Your task to perform on an android device: turn on translation in the chrome app Image 0: 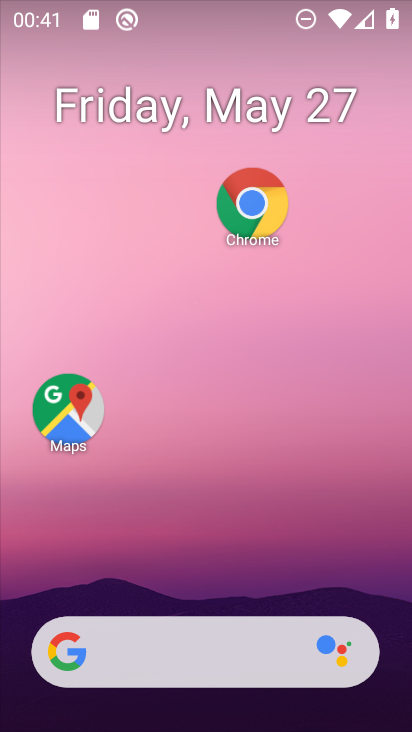
Step 0: drag from (164, 494) to (189, 32)
Your task to perform on an android device: turn on translation in the chrome app Image 1: 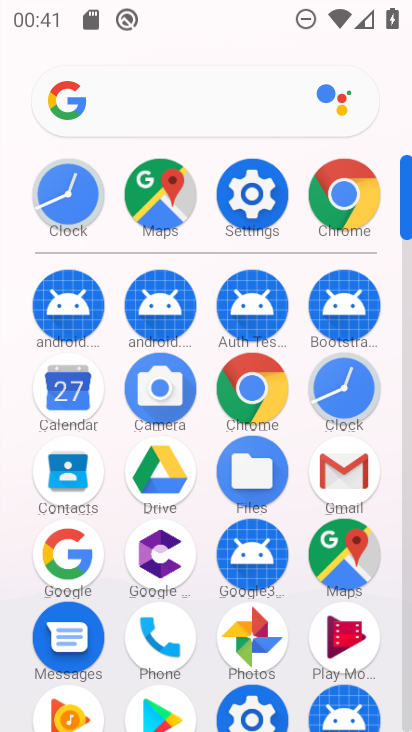
Step 1: click (252, 387)
Your task to perform on an android device: turn on translation in the chrome app Image 2: 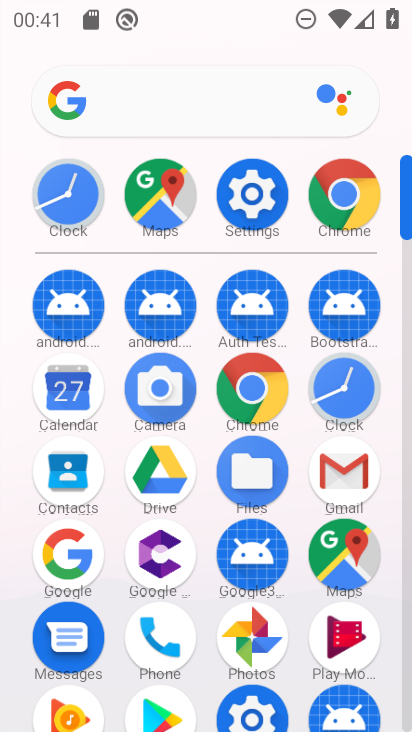
Step 2: click (252, 387)
Your task to perform on an android device: turn on translation in the chrome app Image 3: 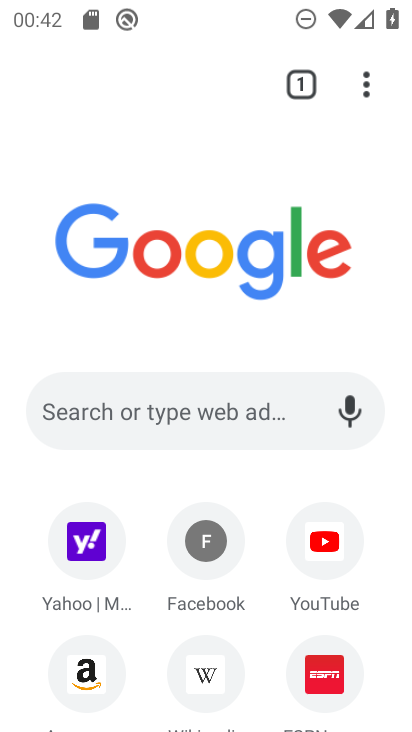
Step 3: drag from (221, 487) to (205, 119)
Your task to perform on an android device: turn on translation in the chrome app Image 4: 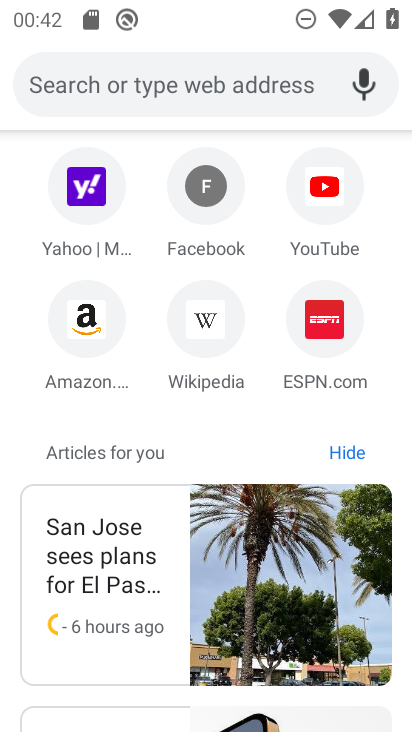
Step 4: click (384, 116)
Your task to perform on an android device: turn on translation in the chrome app Image 5: 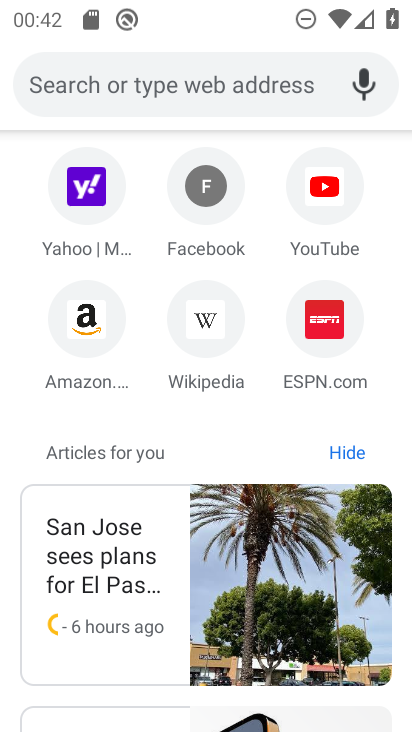
Step 5: drag from (128, 139) to (331, 466)
Your task to perform on an android device: turn on translation in the chrome app Image 6: 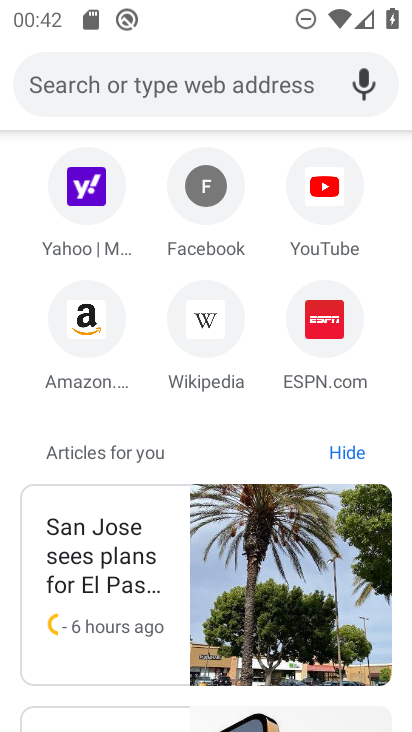
Step 6: drag from (218, 144) to (410, 572)
Your task to perform on an android device: turn on translation in the chrome app Image 7: 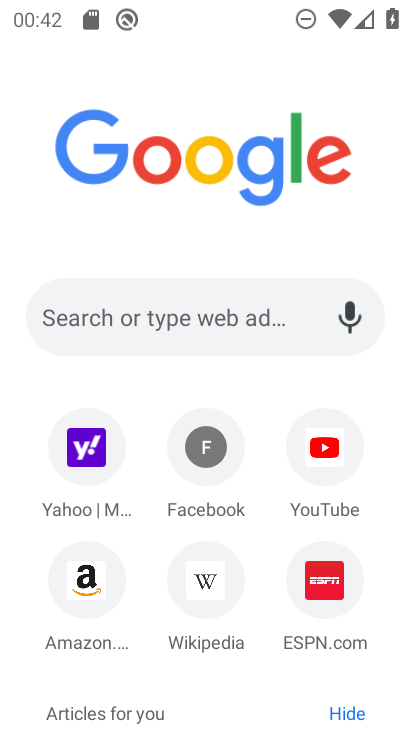
Step 7: drag from (376, 129) to (410, 282)
Your task to perform on an android device: turn on translation in the chrome app Image 8: 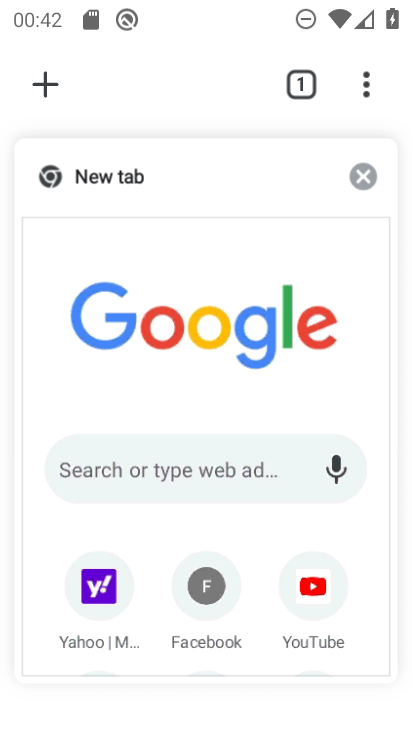
Step 8: click (354, 69)
Your task to perform on an android device: turn on translation in the chrome app Image 9: 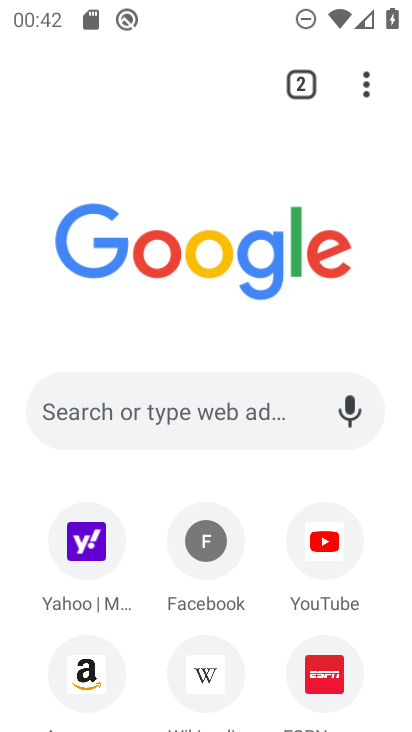
Step 9: click (378, 71)
Your task to perform on an android device: turn on translation in the chrome app Image 10: 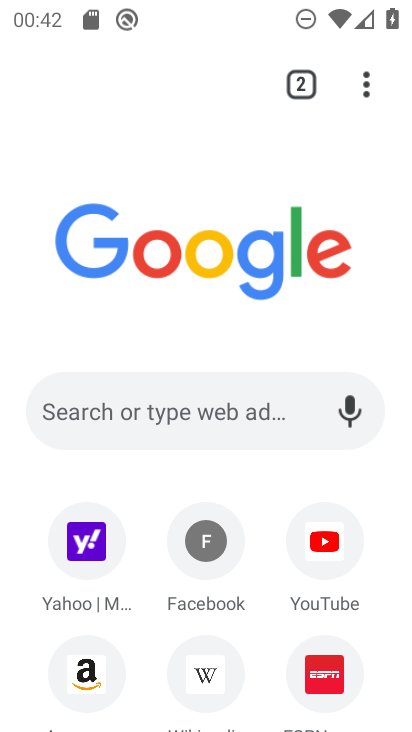
Step 10: click (357, 86)
Your task to perform on an android device: turn on translation in the chrome app Image 11: 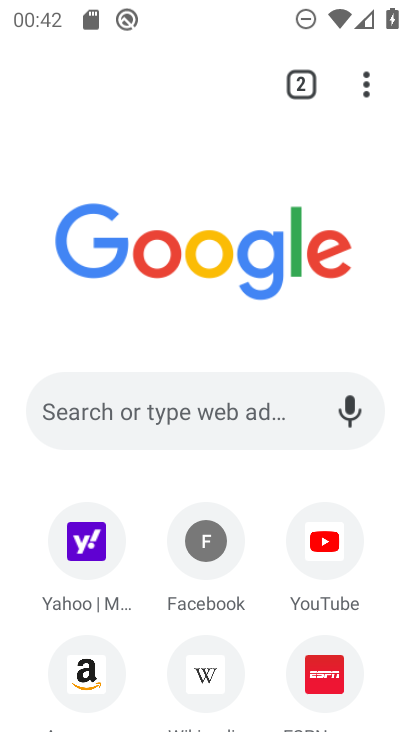
Step 11: drag from (354, 84) to (159, 595)
Your task to perform on an android device: turn on translation in the chrome app Image 12: 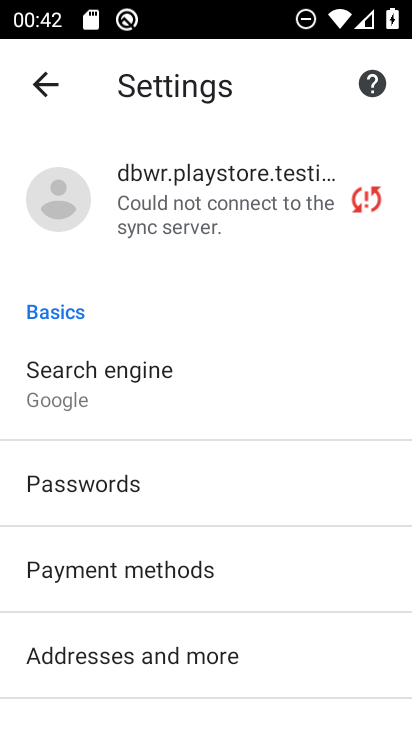
Step 12: drag from (237, 566) to (219, 177)
Your task to perform on an android device: turn on translation in the chrome app Image 13: 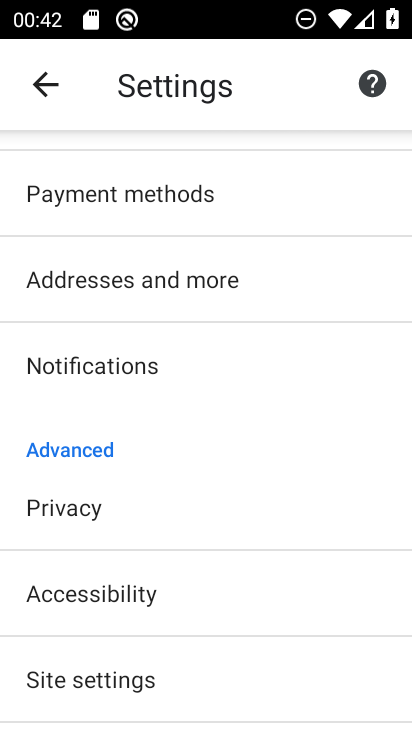
Step 13: drag from (336, 643) to (289, 197)
Your task to perform on an android device: turn on translation in the chrome app Image 14: 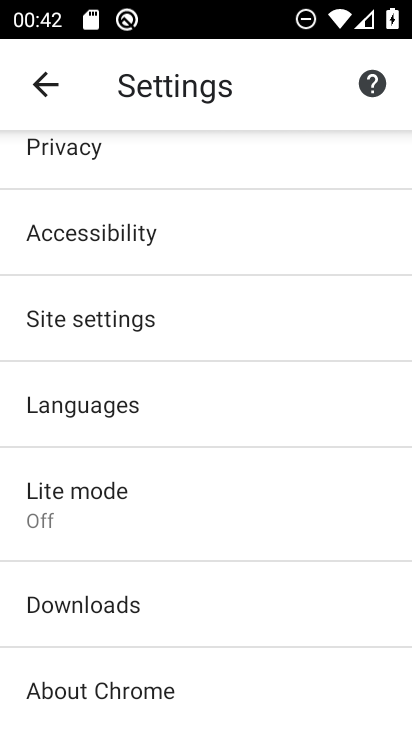
Step 14: click (286, 389)
Your task to perform on an android device: turn on translation in the chrome app Image 15: 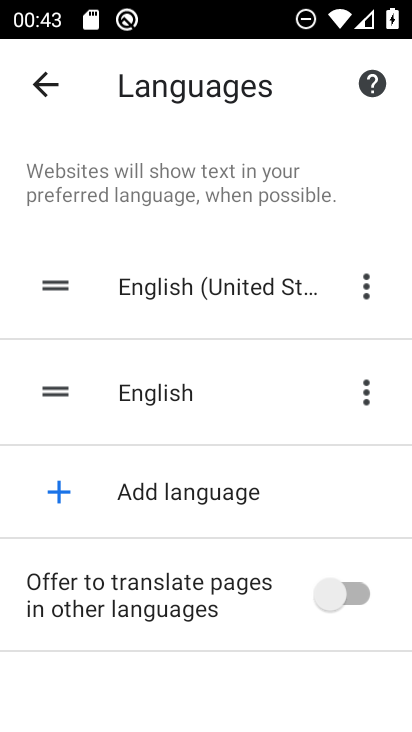
Step 15: click (195, 569)
Your task to perform on an android device: turn on translation in the chrome app Image 16: 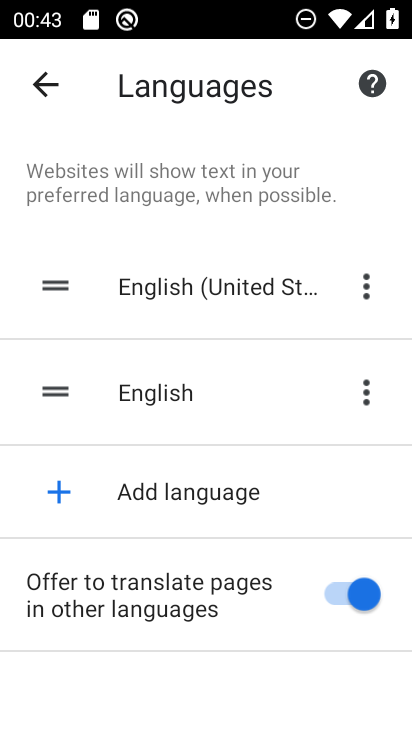
Step 16: task complete